Your task to perform on an android device: Go to internet settings Image 0: 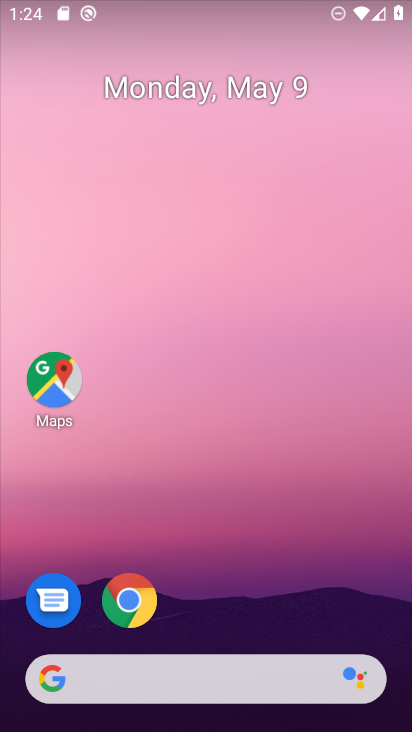
Step 0: drag from (158, 679) to (327, 165)
Your task to perform on an android device: Go to internet settings Image 1: 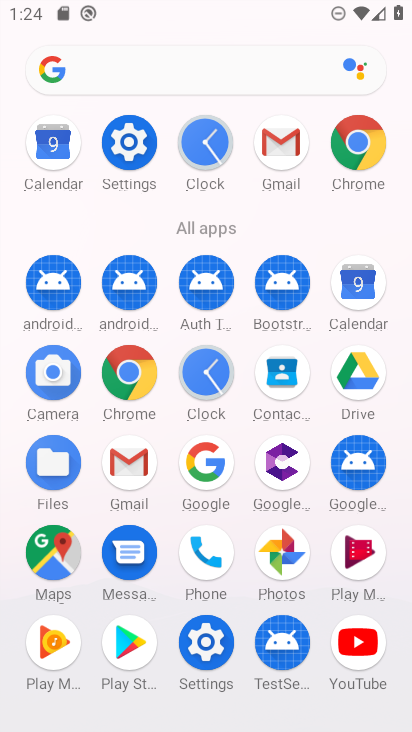
Step 1: click (119, 165)
Your task to perform on an android device: Go to internet settings Image 2: 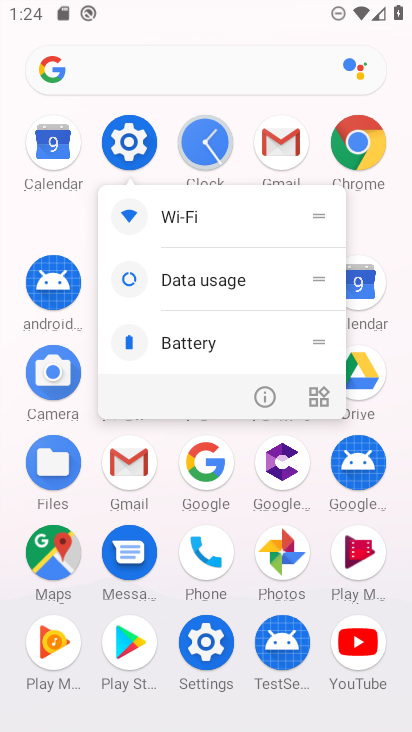
Step 2: click (134, 143)
Your task to perform on an android device: Go to internet settings Image 3: 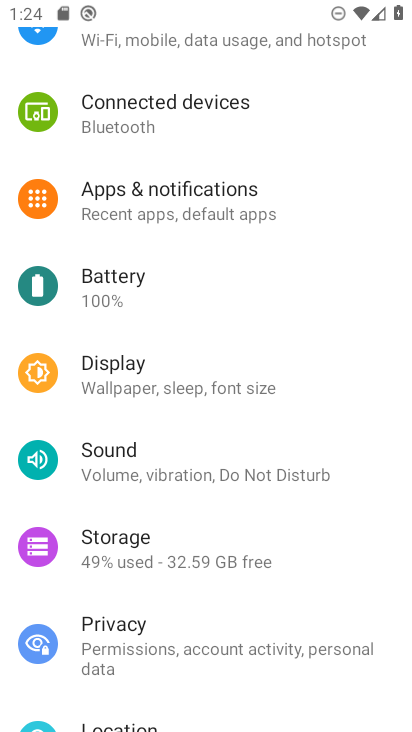
Step 3: drag from (284, 71) to (230, 533)
Your task to perform on an android device: Go to internet settings Image 4: 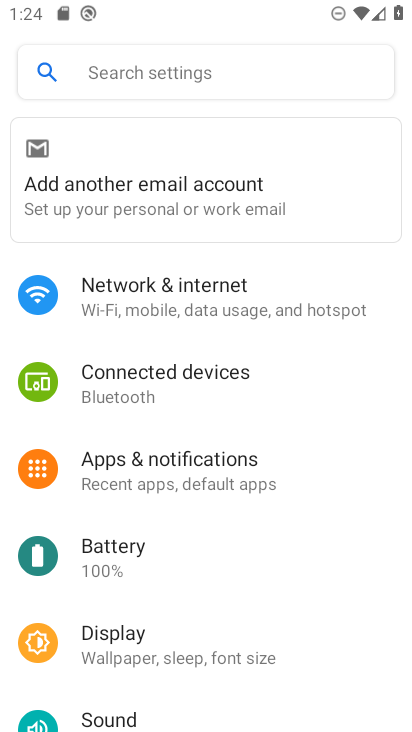
Step 4: click (195, 290)
Your task to perform on an android device: Go to internet settings Image 5: 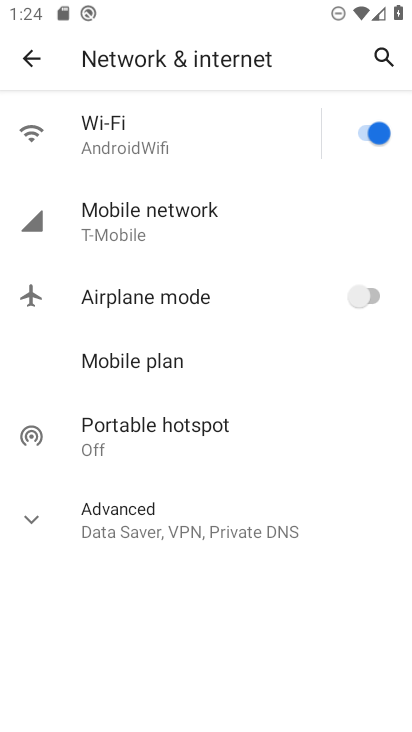
Step 5: task complete